Your task to perform on an android device: turn pop-ups on in chrome Image 0: 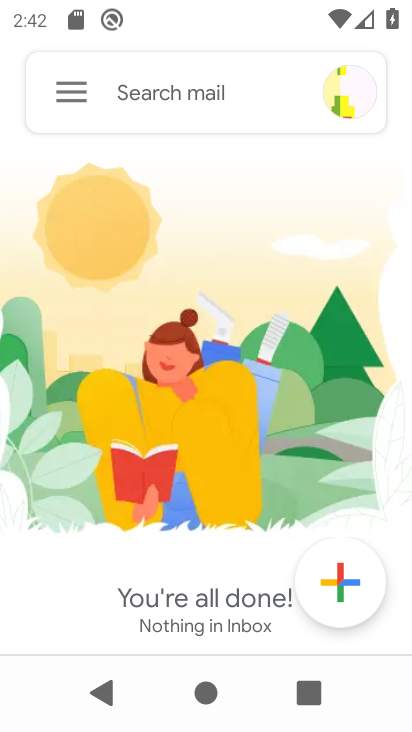
Step 0: press home button
Your task to perform on an android device: turn pop-ups on in chrome Image 1: 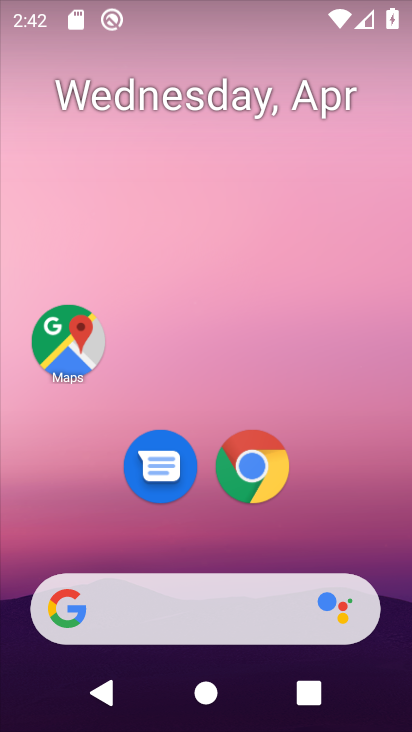
Step 1: click (243, 474)
Your task to perform on an android device: turn pop-ups on in chrome Image 2: 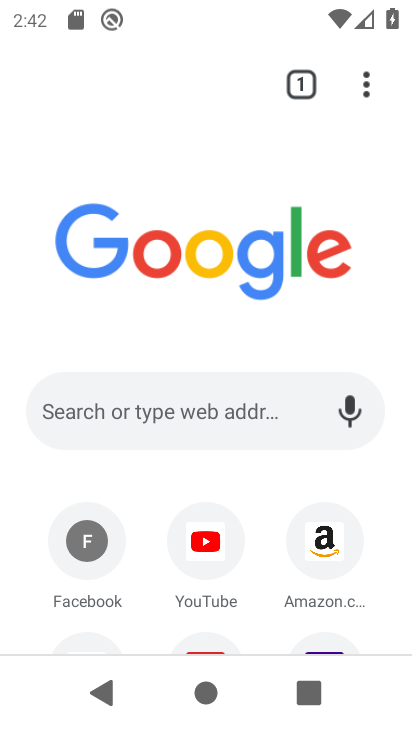
Step 2: click (365, 81)
Your task to perform on an android device: turn pop-ups on in chrome Image 3: 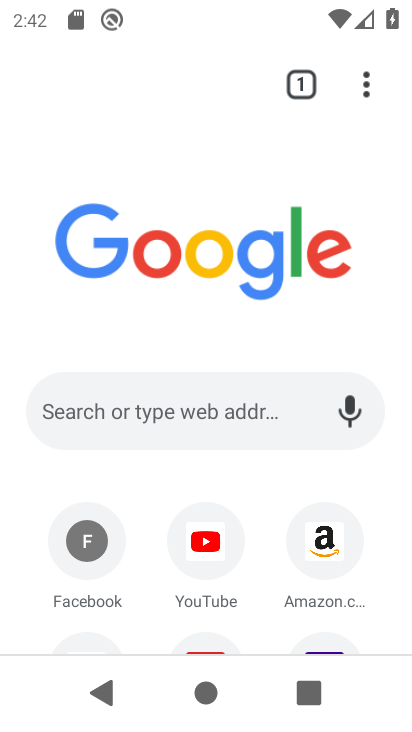
Step 3: click (365, 85)
Your task to perform on an android device: turn pop-ups on in chrome Image 4: 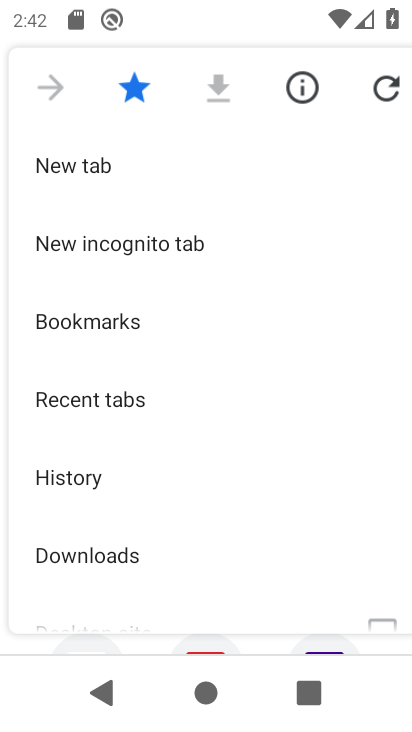
Step 4: drag from (188, 466) to (196, 93)
Your task to perform on an android device: turn pop-ups on in chrome Image 5: 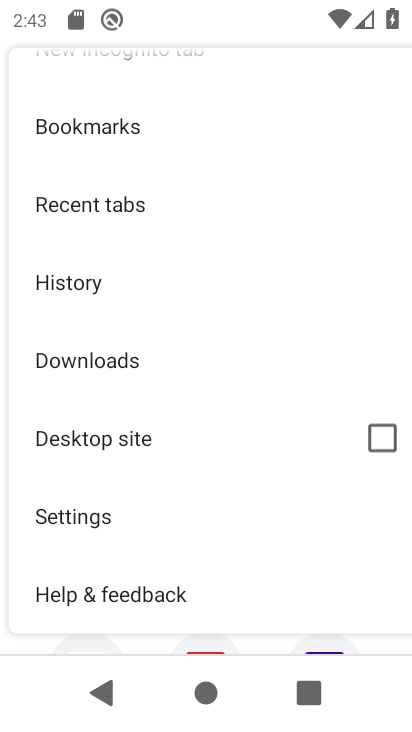
Step 5: click (92, 520)
Your task to perform on an android device: turn pop-ups on in chrome Image 6: 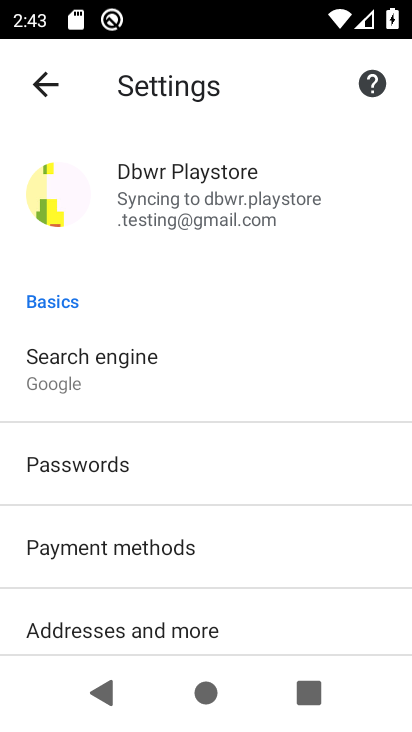
Step 6: drag from (209, 598) to (166, 151)
Your task to perform on an android device: turn pop-ups on in chrome Image 7: 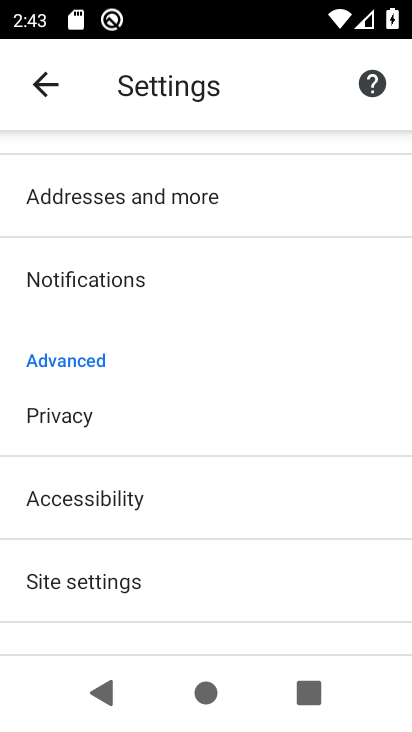
Step 7: drag from (190, 502) to (202, 226)
Your task to perform on an android device: turn pop-ups on in chrome Image 8: 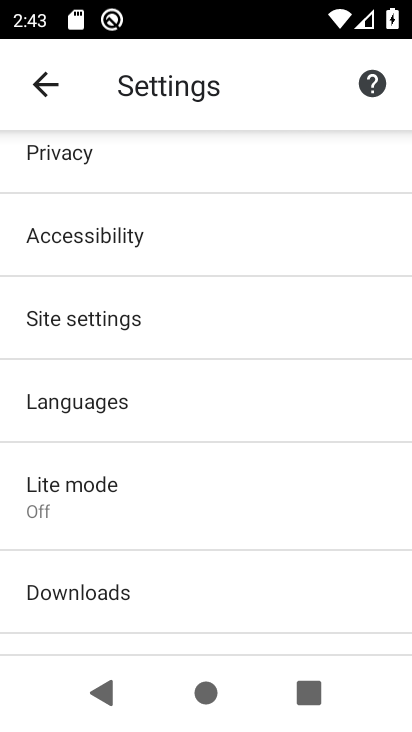
Step 8: click (93, 320)
Your task to perform on an android device: turn pop-ups on in chrome Image 9: 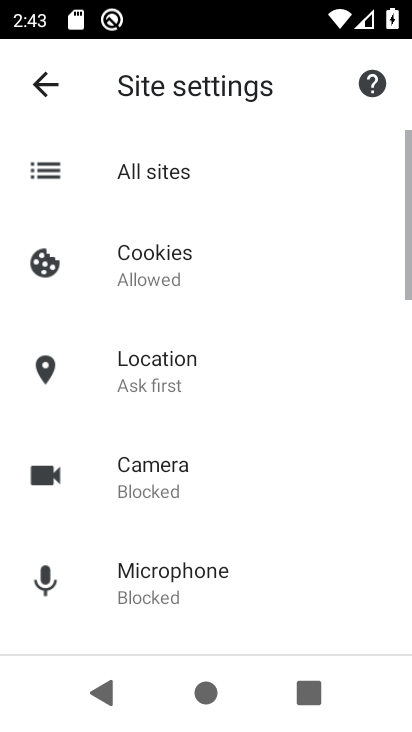
Step 9: drag from (203, 531) to (199, 128)
Your task to perform on an android device: turn pop-ups on in chrome Image 10: 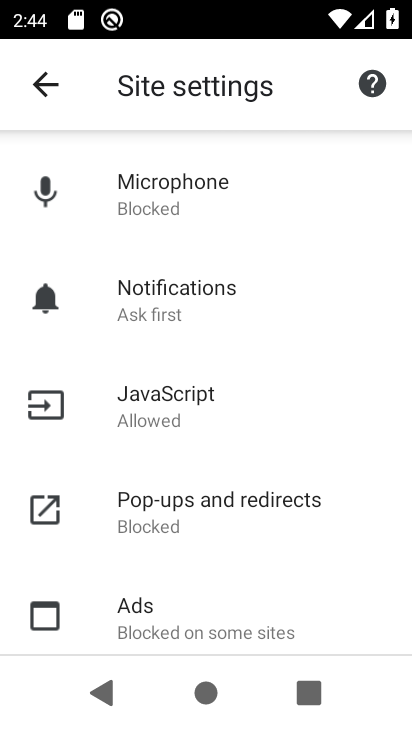
Step 10: click (187, 497)
Your task to perform on an android device: turn pop-ups on in chrome Image 11: 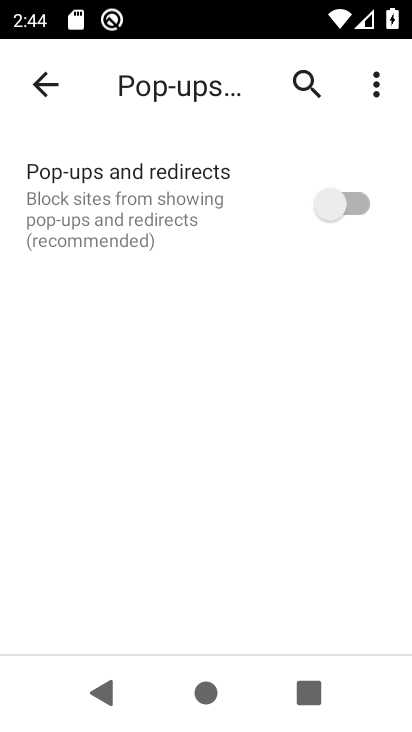
Step 11: click (325, 206)
Your task to perform on an android device: turn pop-ups on in chrome Image 12: 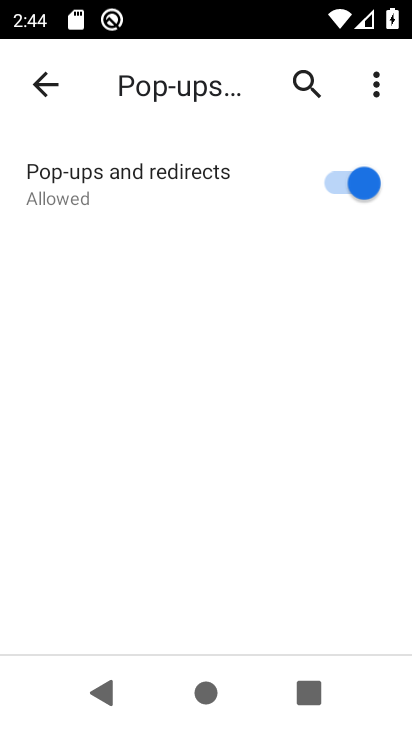
Step 12: task complete